Your task to perform on an android device: What's the news in Taiwan? Image 0: 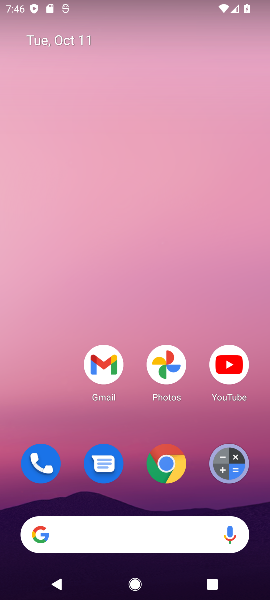
Step 0: drag from (63, 458) to (126, 237)
Your task to perform on an android device: What's the news in Taiwan? Image 1: 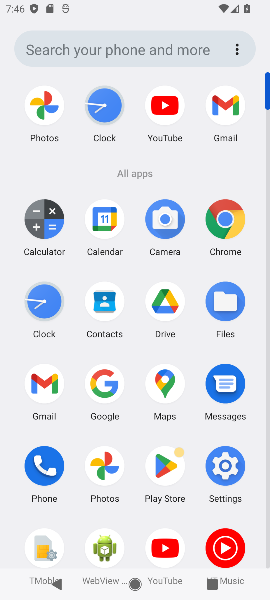
Step 1: click (89, 385)
Your task to perform on an android device: What's the news in Taiwan? Image 2: 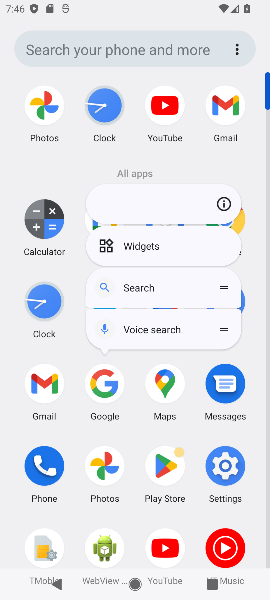
Step 2: click (101, 386)
Your task to perform on an android device: What's the news in Taiwan? Image 3: 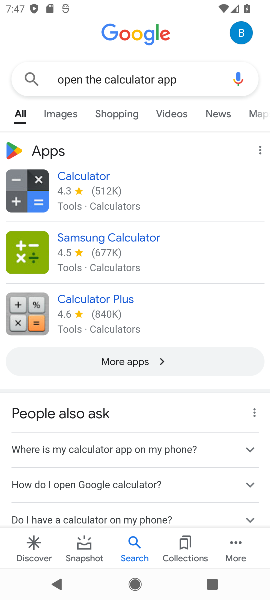
Step 3: click (172, 81)
Your task to perform on an android device: What's the news in Taiwan? Image 4: 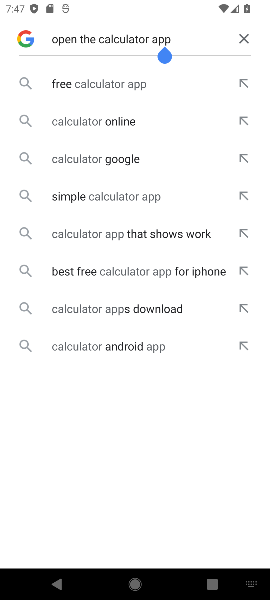
Step 4: click (241, 31)
Your task to perform on an android device: What's the news in Taiwan? Image 5: 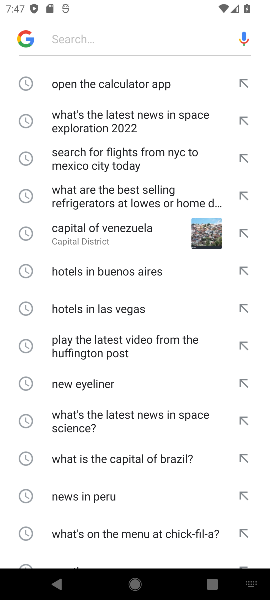
Step 5: click (141, 50)
Your task to perform on an android device: What's the news in Taiwan? Image 6: 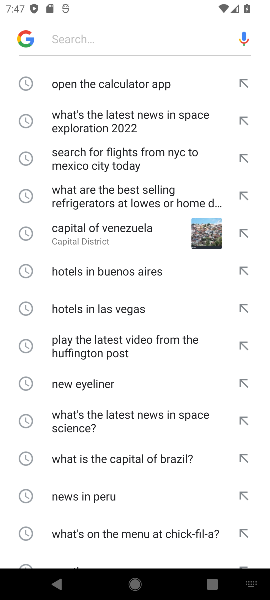
Step 6: click (141, 19)
Your task to perform on an android device: What's the news in Taiwan? Image 7: 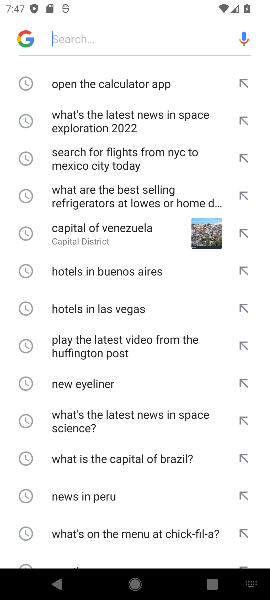
Step 7: type "What's the news in Taiwan? "
Your task to perform on an android device: What's the news in Taiwan? Image 8: 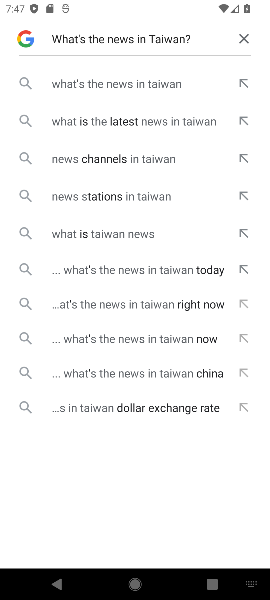
Step 8: click (120, 89)
Your task to perform on an android device: What's the news in Taiwan? Image 9: 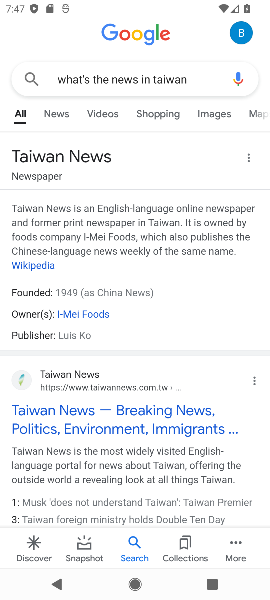
Step 9: drag from (97, 448) to (142, 190)
Your task to perform on an android device: What's the news in Taiwan? Image 10: 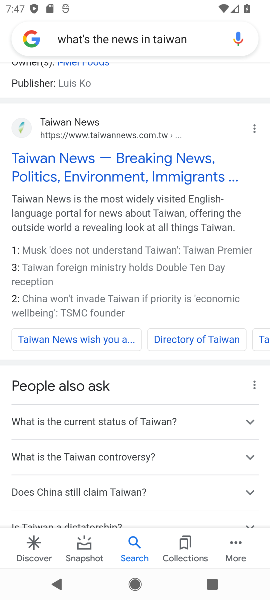
Step 10: drag from (159, 457) to (170, 194)
Your task to perform on an android device: What's the news in Taiwan? Image 11: 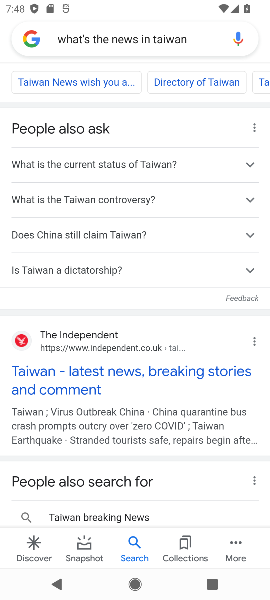
Step 11: click (92, 369)
Your task to perform on an android device: What's the news in Taiwan? Image 12: 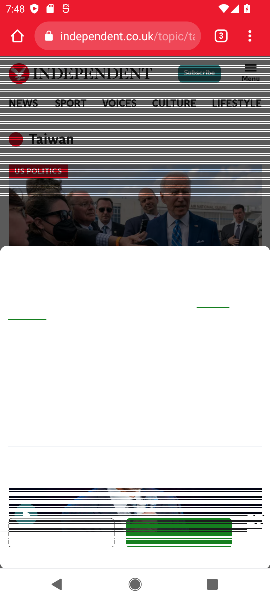
Step 12: drag from (139, 495) to (162, 331)
Your task to perform on an android device: What's the news in Taiwan? Image 13: 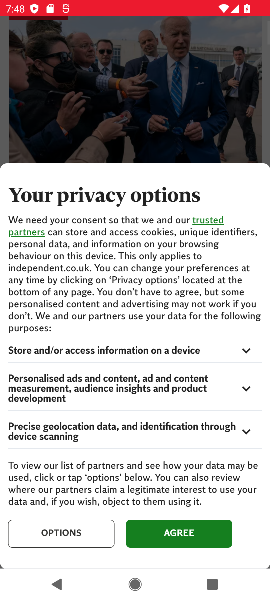
Step 13: click (170, 533)
Your task to perform on an android device: What's the news in Taiwan? Image 14: 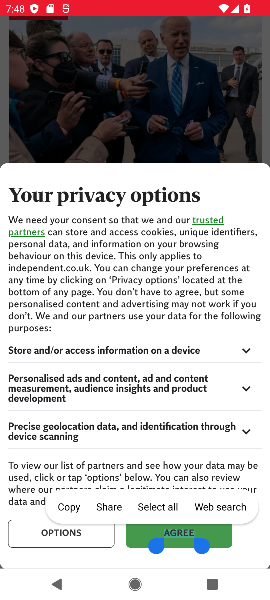
Step 14: click (174, 530)
Your task to perform on an android device: What's the news in Taiwan? Image 15: 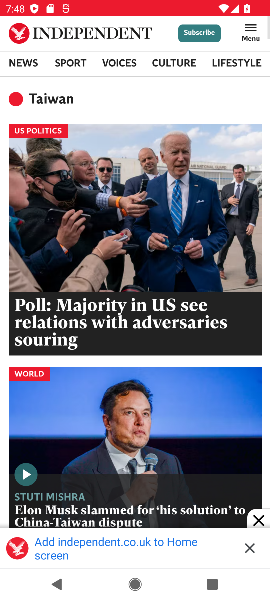
Step 15: drag from (145, 406) to (189, 105)
Your task to perform on an android device: What's the news in Taiwan? Image 16: 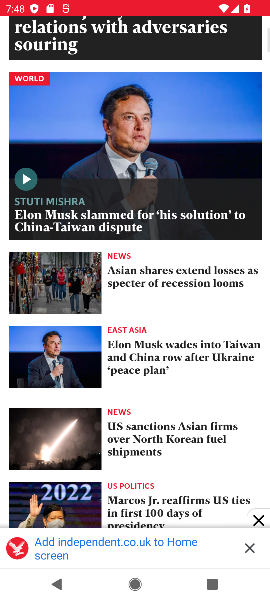
Step 16: drag from (101, 374) to (148, 181)
Your task to perform on an android device: What's the news in Taiwan? Image 17: 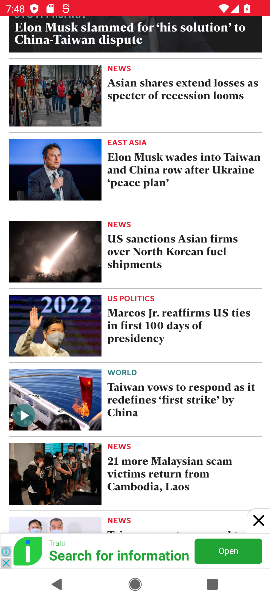
Step 17: drag from (184, 476) to (215, 125)
Your task to perform on an android device: What's the news in Taiwan? Image 18: 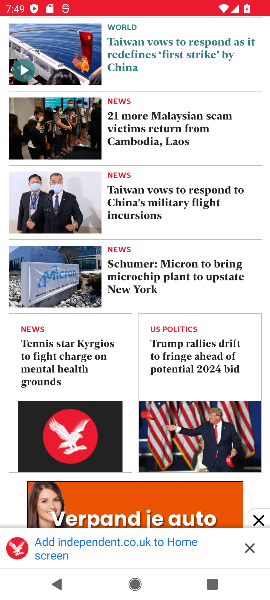
Step 18: click (247, 550)
Your task to perform on an android device: What's the news in Taiwan? Image 19: 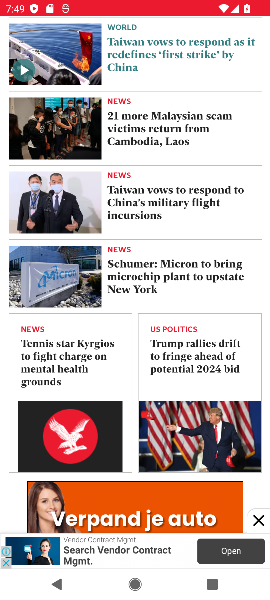
Step 19: task complete